Your task to perform on an android device: set the stopwatch Image 0: 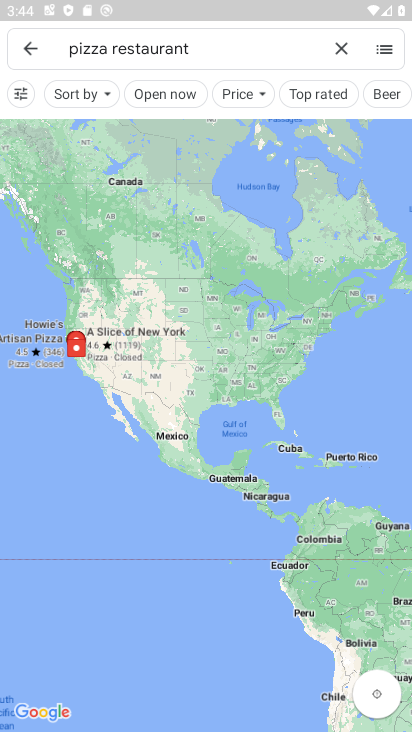
Step 0: press home button
Your task to perform on an android device: set the stopwatch Image 1: 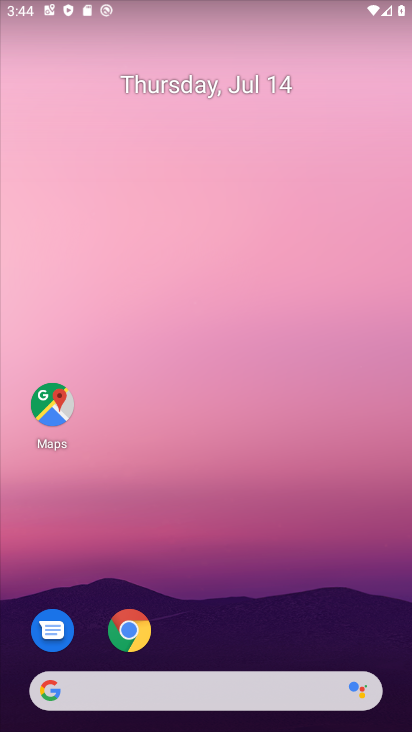
Step 1: drag from (199, 725) to (196, 200)
Your task to perform on an android device: set the stopwatch Image 2: 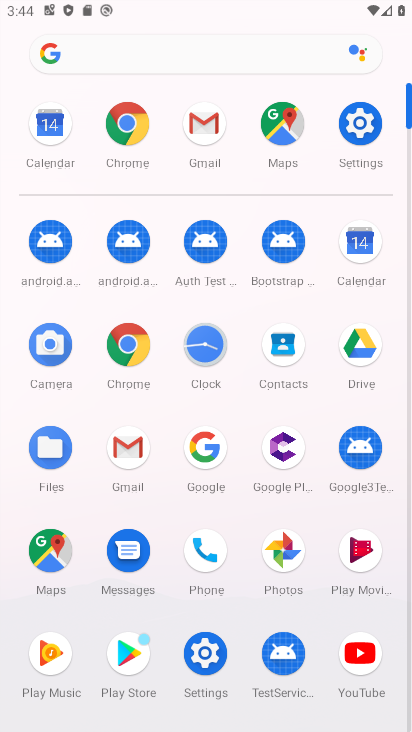
Step 2: click (208, 345)
Your task to perform on an android device: set the stopwatch Image 3: 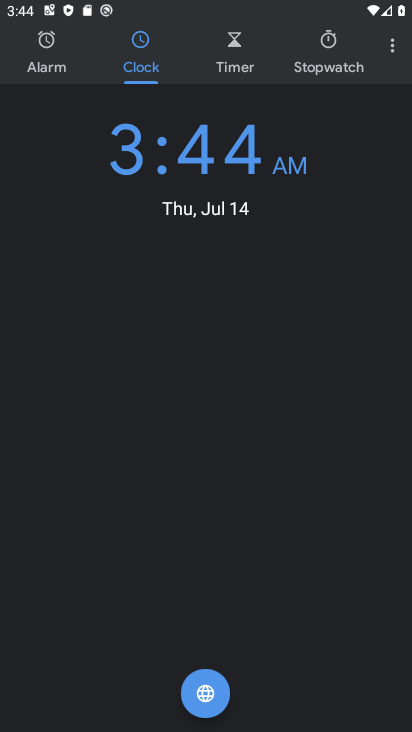
Step 3: click (334, 49)
Your task to perform on an android device: set the stopwatch Image 4: 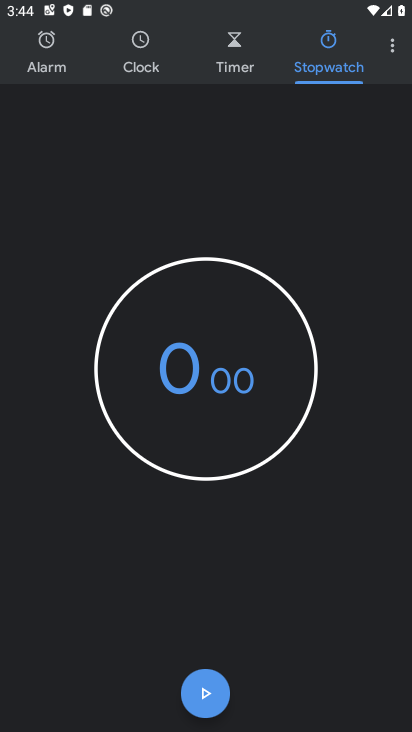
Step 4: click (260, 369)
Your task to perform on an android device: set the stopwatch Image 5: 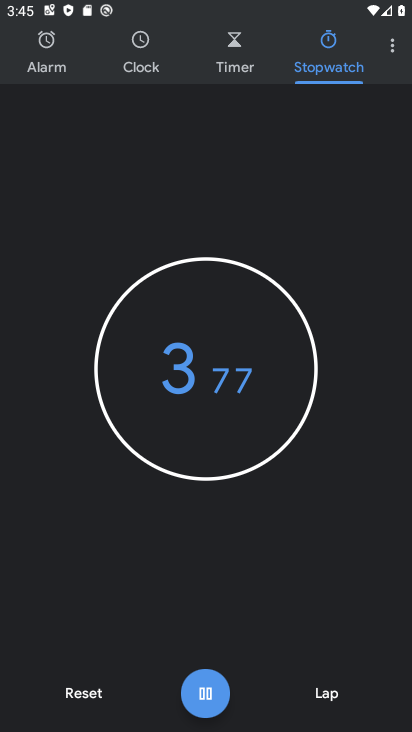
Step 5: type "78765"
Your task to perform on an android device: set the stopwatch Image 6: 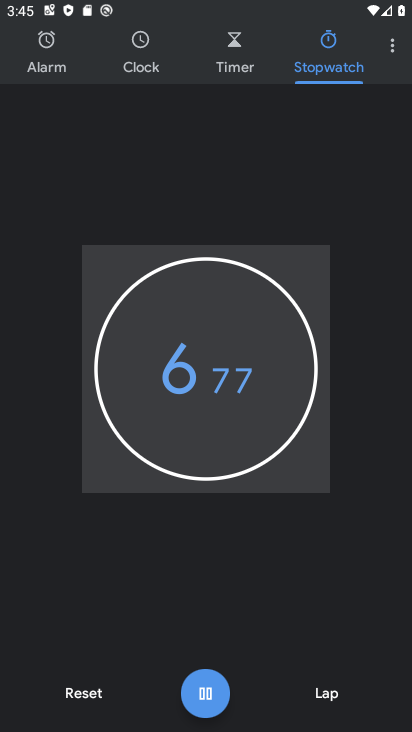
Step 6: task complete